Your task to perform on an android device: allow cookies in the chrome app Image 0: 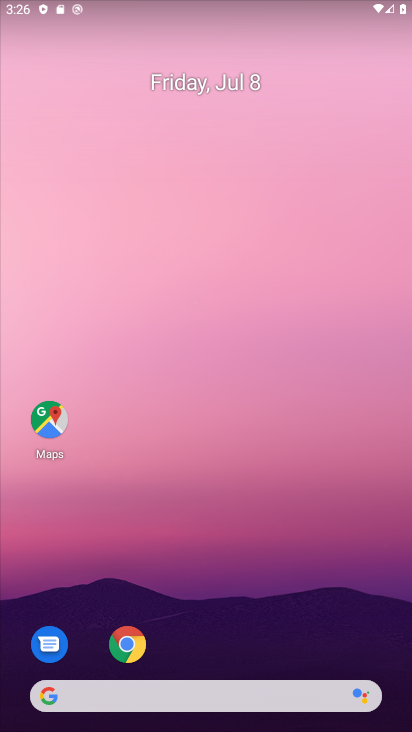
Step 0: click (132, 638)
Your task to perform on an android device: allow cookies in the chrome app Image 1: 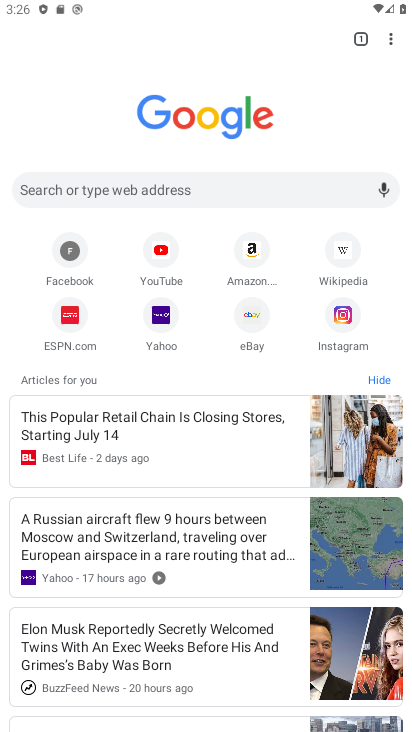
Step 1: click (388, 38)
Your task to perform on an android device: allow cookies in the chrome app Image 2: 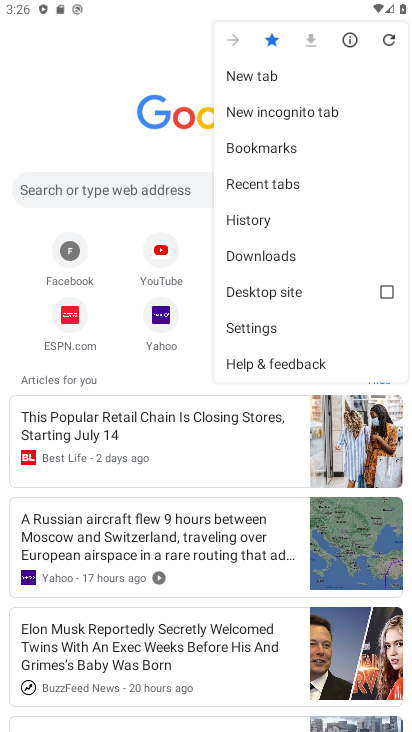
Step 2: click (254, 325)
Your task to perform on an android device: allow cookies in the chrome app Image 3: 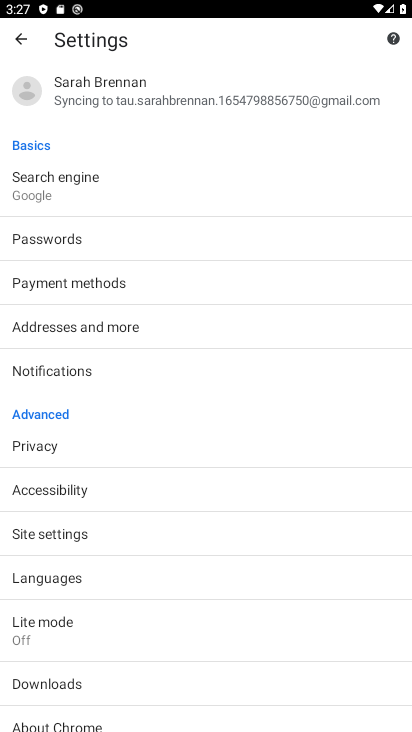
Step 3: click (213, 446)
Your task to perform on an android device: allow cookies in the chrome app Image 4: 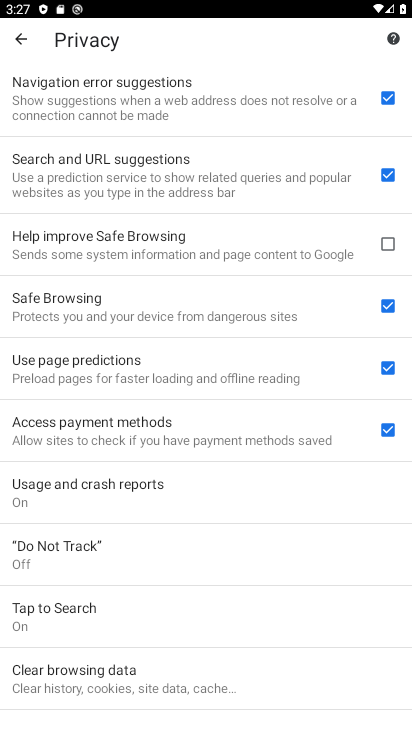
Step 4: drag from (179, 518) to (317, 93)
Your task to perform on an android device: allow cookies in the chrome app Image 5: 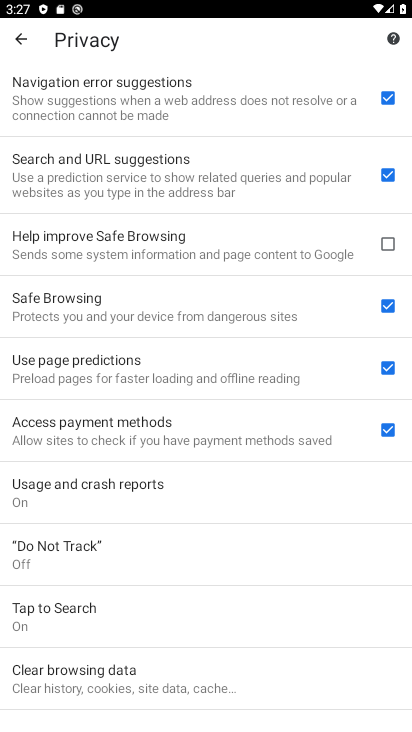
Step 5: click (12, 33)
Your task to perform on an android device: allow cookies in the chrome app Image 6: 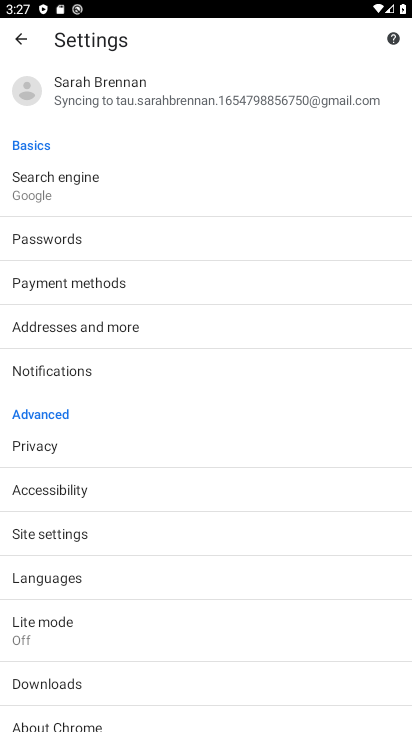
Step 6: click (39, 526)
Your task to perform on an android device: allow cookies in the chrome app Image 7: 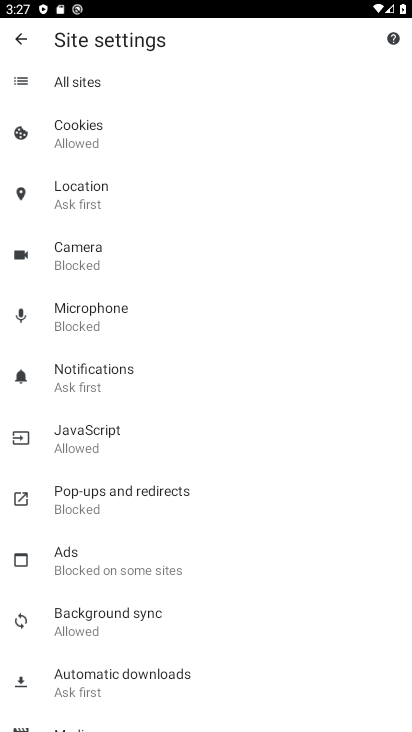
Step 7: click (164, 289)
Your task to perform on an android device: allow cookies in the chrome app Image 8: 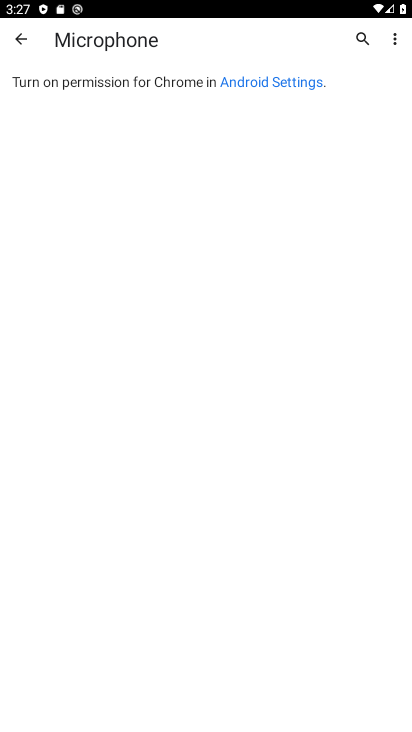
Step 8: click (30, 37)
Your task to perform on an android device: allow cookies in the chrome app Image 9: 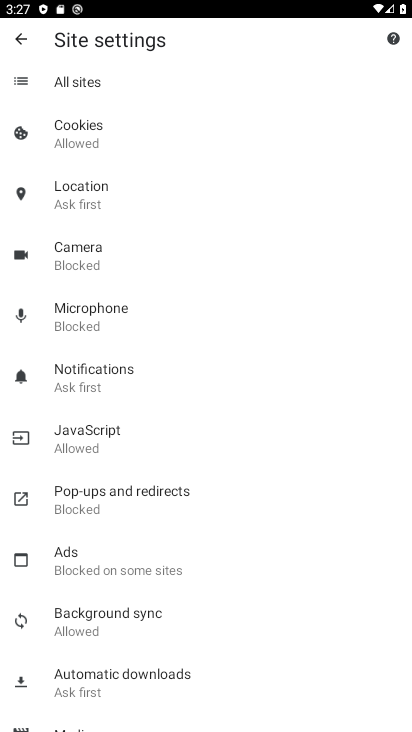
Step 9: drag from (227, 529) to (269, 605)
Your task to perform on an android device: allow cookies in the chrome app Image 10: 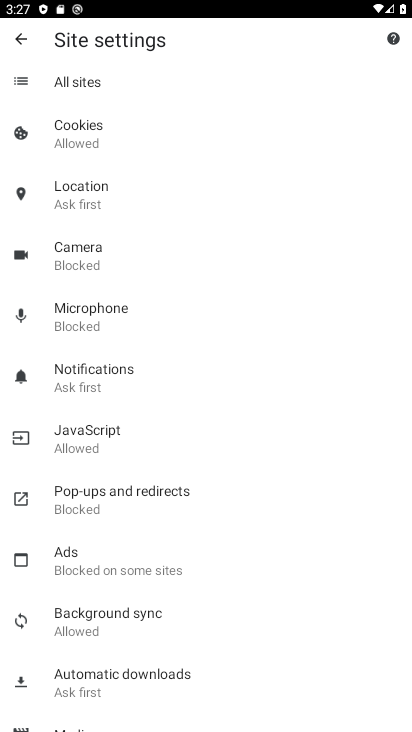
Step 10: click (62, 123)
Your task to perform on an android device: allow cookies in the chrome app Image 11: 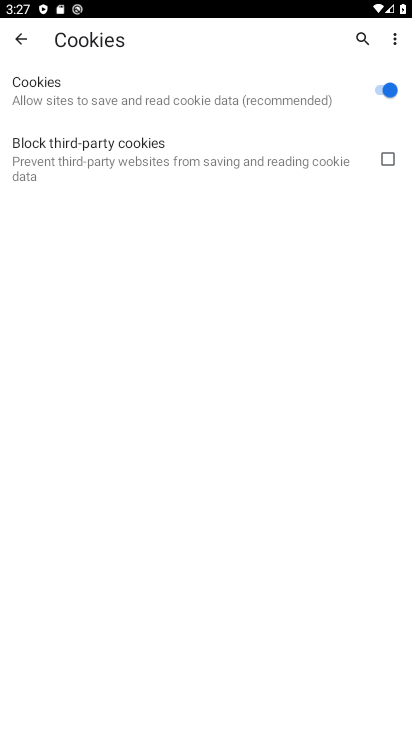
Step 11: task complete